Your task to perform on an android device: add a contact Image 0: 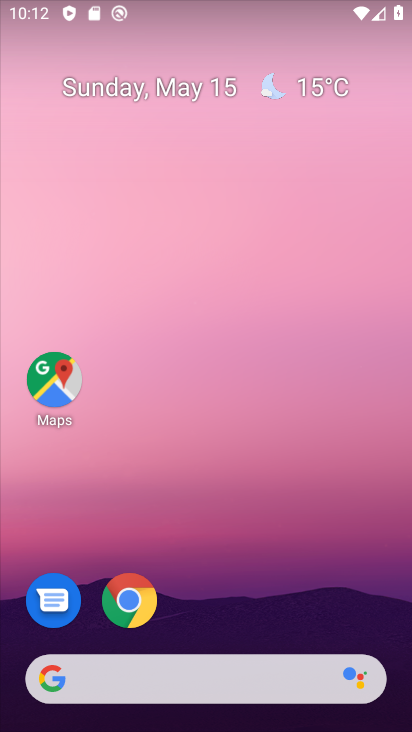
Step 0: drag from (384, 619) to (387, 74)
Your task to perform on an android device: add a contact Image 1: 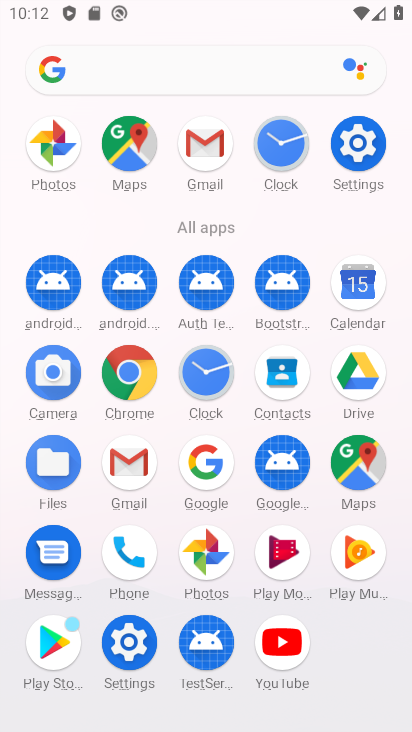
Step 1: click (284, 359)
Your task to perform on an android device: add a contact Image 2: 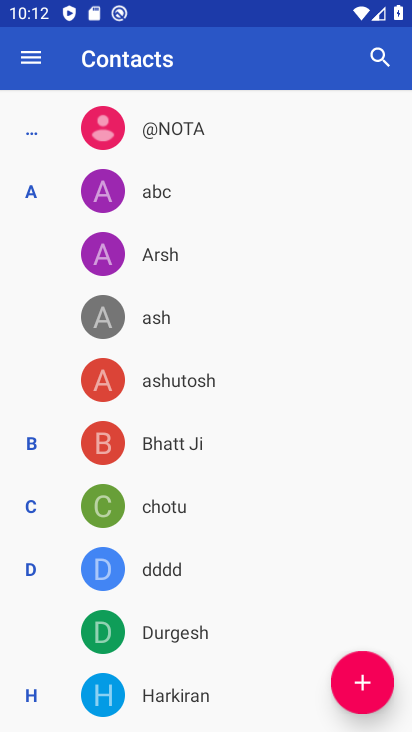
Step 2: click (364, 686)
Your task to perform on an android device: add a contact Image 3: 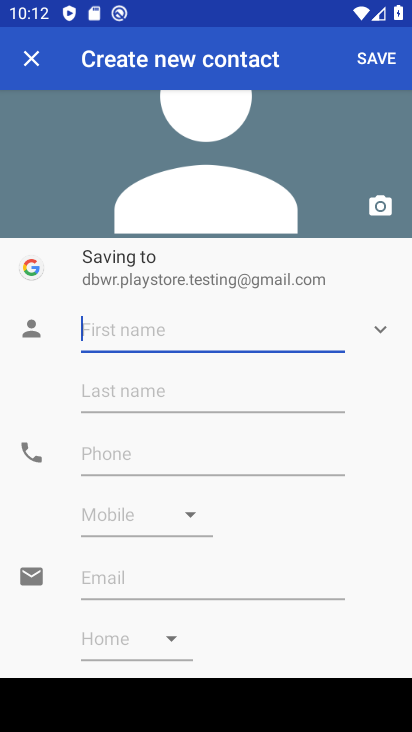
Step 3: type ""
Your task to perform on an android device: add a contact Image 4: 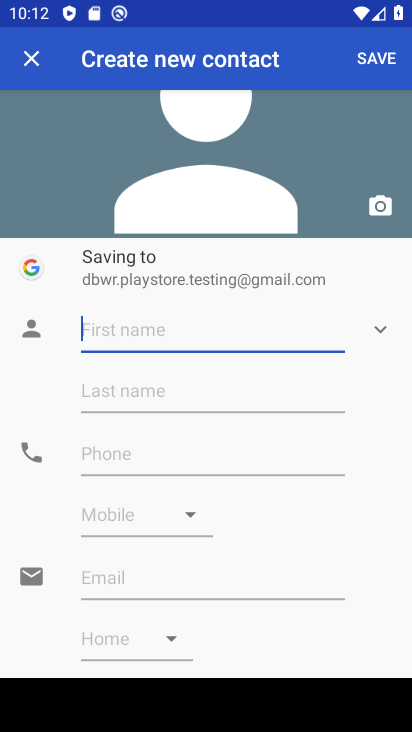
Step 4: type "maan"
Your task to perform on an android device: add a contact Image 5: 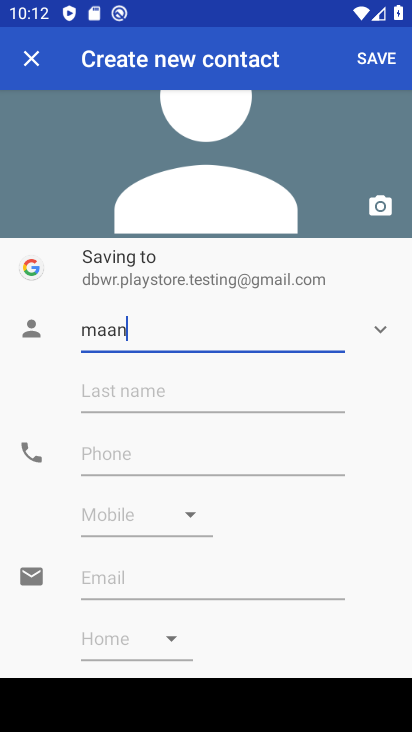
Step 5: click (164, 459)
Your task to perform on an android device: add a contact Image 6: 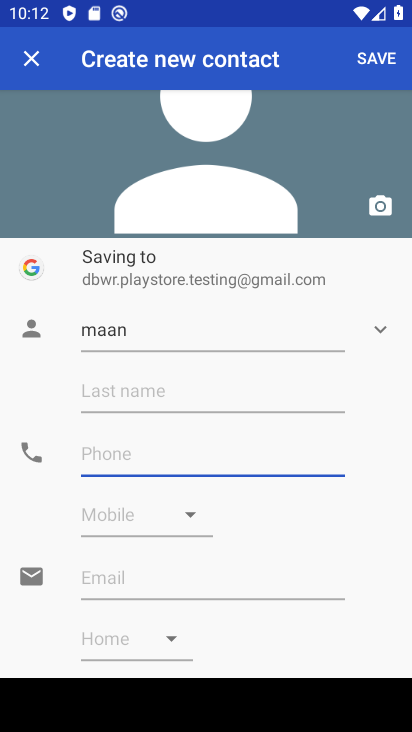
Step 6: type "123456789"
Your task to perform on an android device: add a contact Image 7: 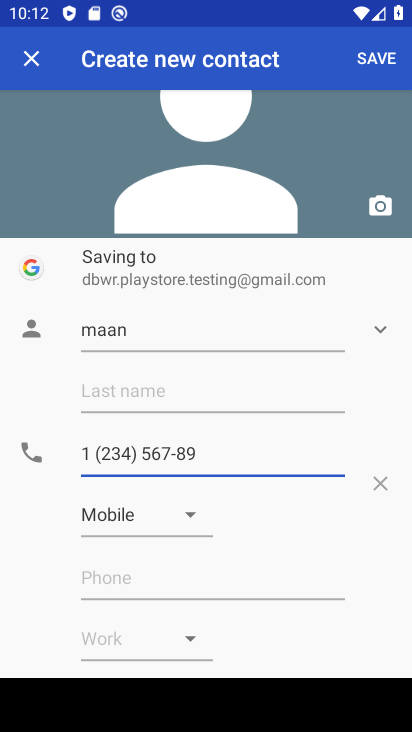
Step 7: click (372, 48)
Your task to perform on an android device: add a contact Image 8: 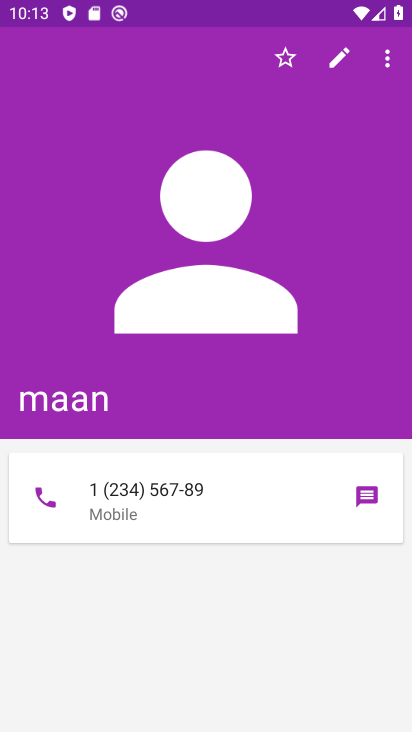
Step 8: task complete